Your task to perform on an android device: set the timer Image 0: 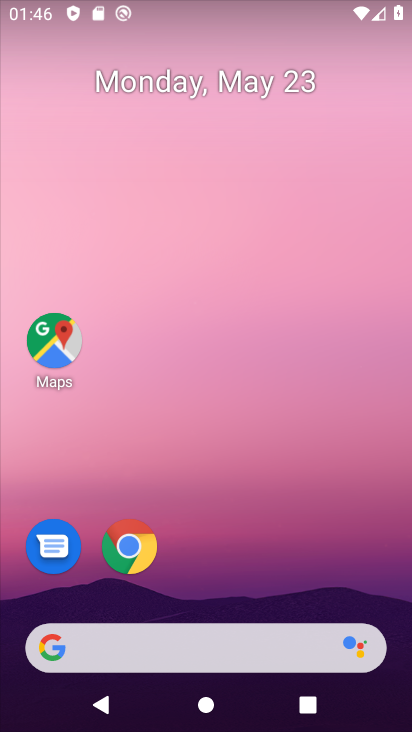
Step 0: drag from (194, 571) to (282, 30)
Your task to perform on an android device: set the timer Image 1: 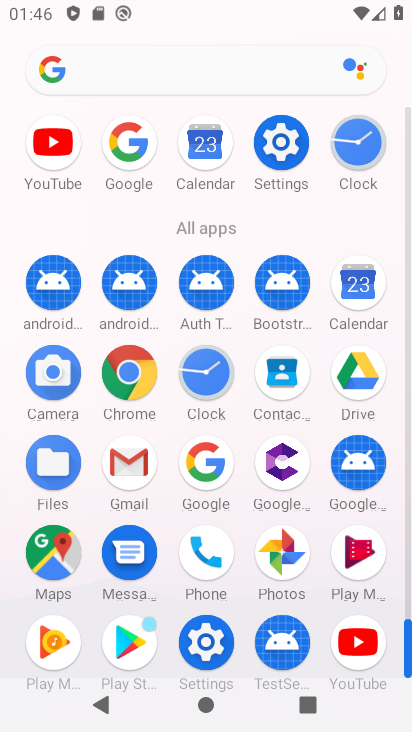
Step 1: click (199, 370)
Your task to perform on an android device: set the timer Image 2: 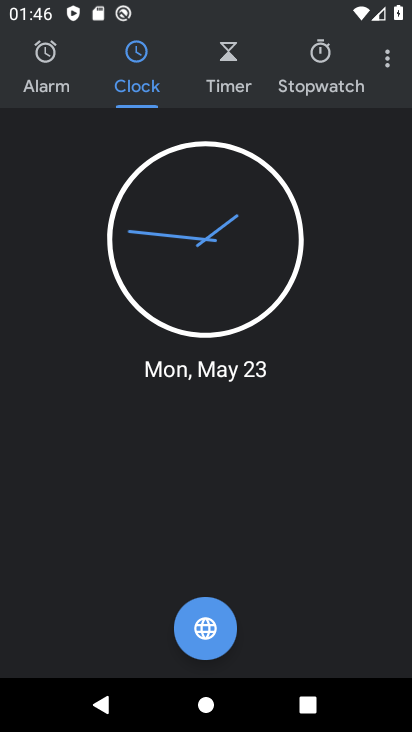
Step 2: click (227, 75)
Your task to perform on an android device: set the timer Image 3: 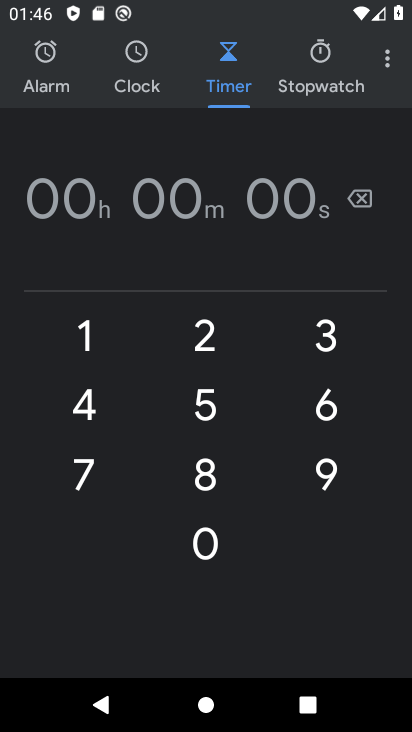
Step 3: click (192, 328)
Your task to perform on an android device: set the timer Image 4: 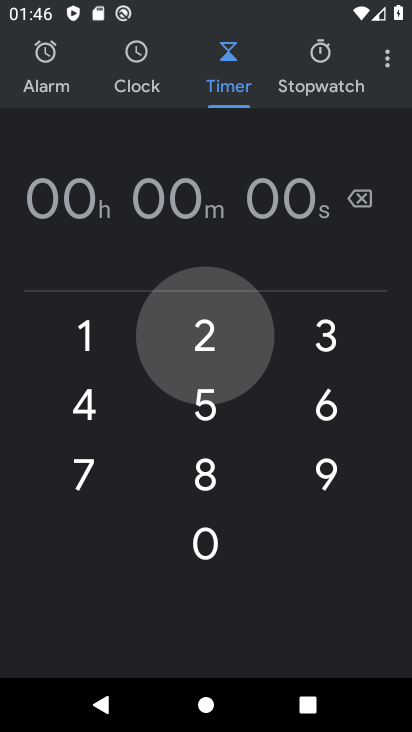
Step 4: click (210, 403)
Your task to perform on an android device: set the timer Image 5: 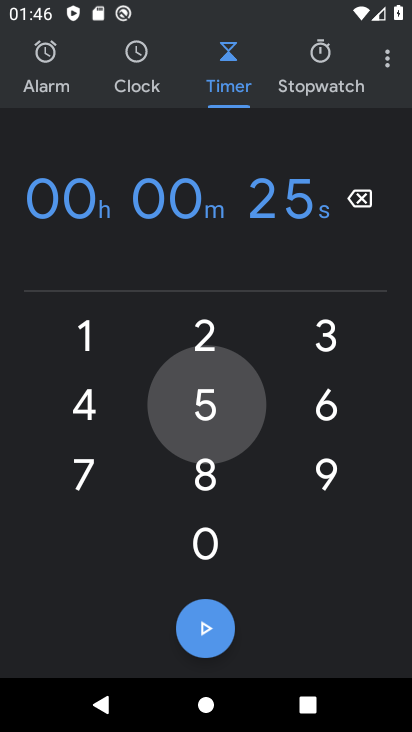
Step 5: click (313, 401)
Your task to perform on an android device: set the timer Image 6: 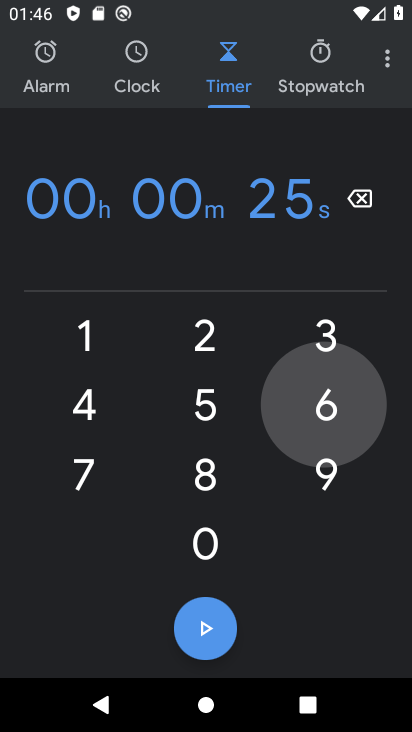
Step 6: click (327, 328)
Your task to perform on an android device: set the timer Image 7: 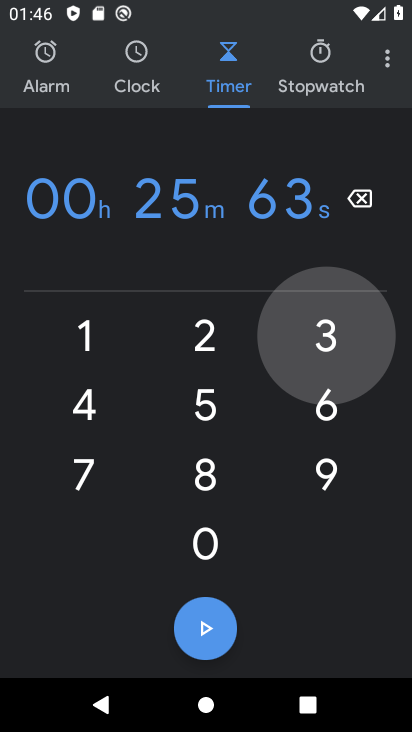
Step 7: click (197, 459)
Your task to perform on an android device: set the timer Image 8: 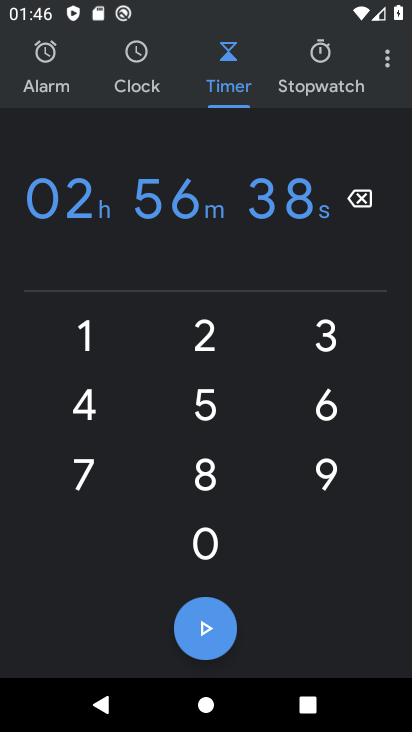
Step 8: task complete